Your task to perform on an android device: Open calendar and show me the fourth week of next month Image 0: 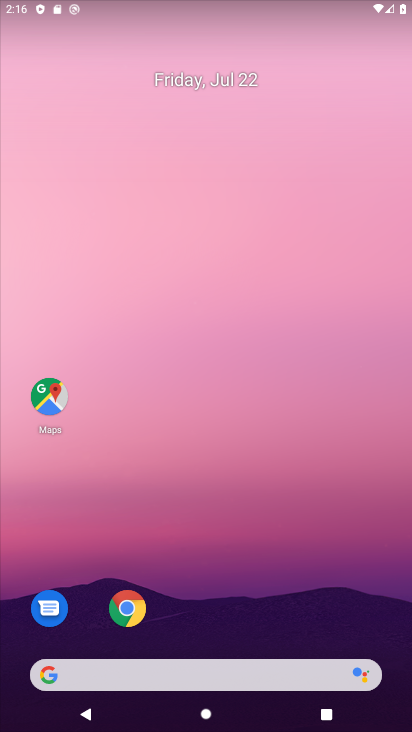
Step 0: drag from (173, 661) to (173, 208)
Your task to perform on an android device: Open calendar and show me the fourth week of next month Image 1: 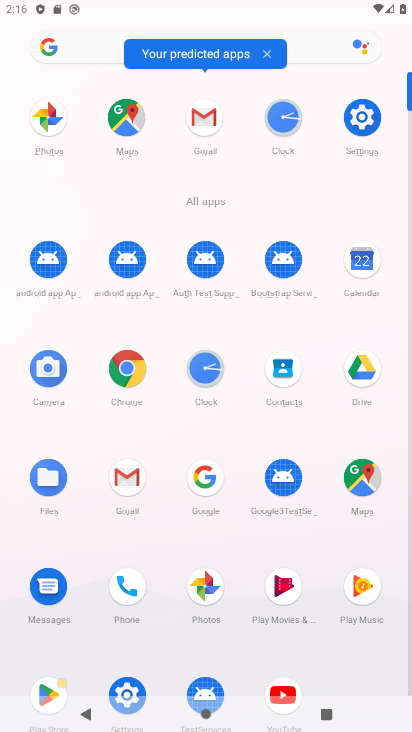
Step 1: click (359, 266)
Your task to perform on an android device: Open calendar and show me the fourth week of next month Image 2: 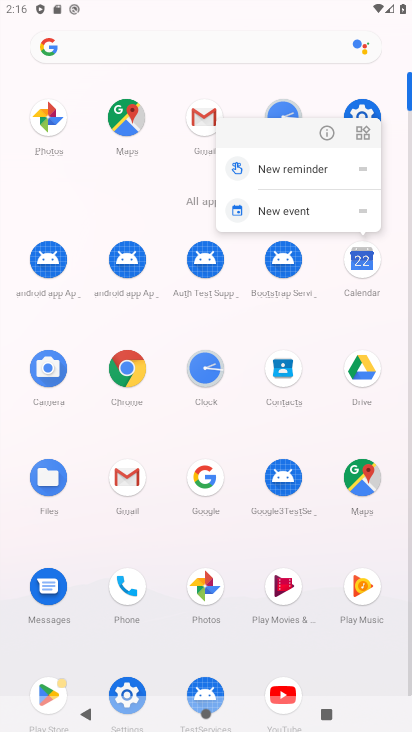
Step 2: click (356, 261)
Your task to perform on an android device: Open calendar and show me the fourth week of next month Image 3: 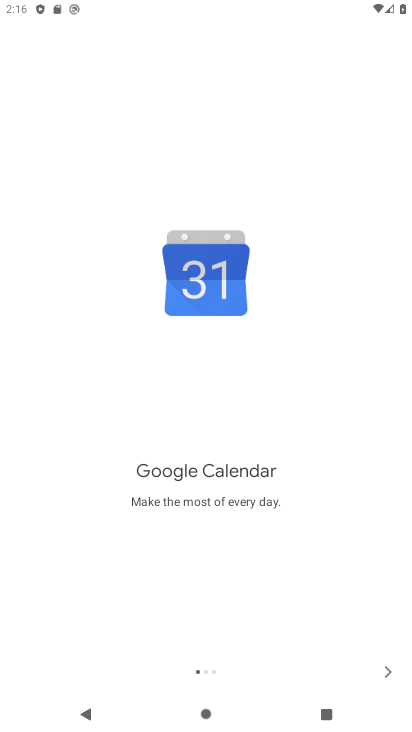
Step 3: click (389, 670)
Your task to perform on an android device: Open calendar and show me the fourth week of next month Image 4: 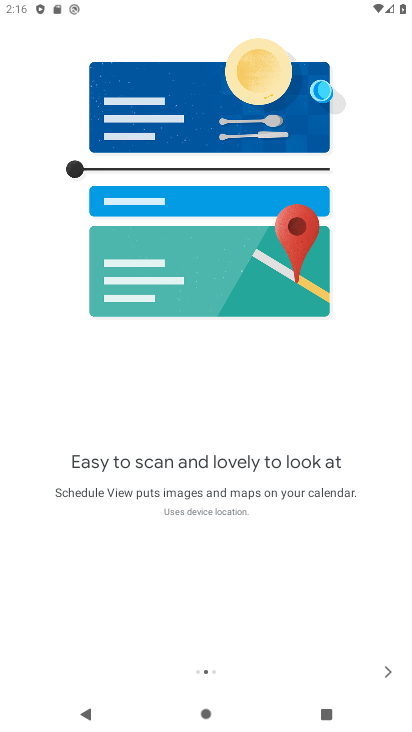
Step 4: click (389, 670)
Your task to perform on an android device: Open calendar and show me the fourth week of next month Image 5: 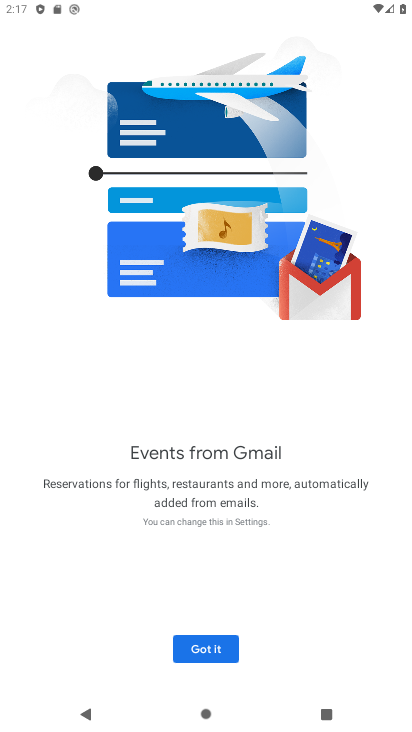
Step 5: click (186, 654)
Your task to perform on an android device: Open calendar and show me the fourth week of next month Image 6: 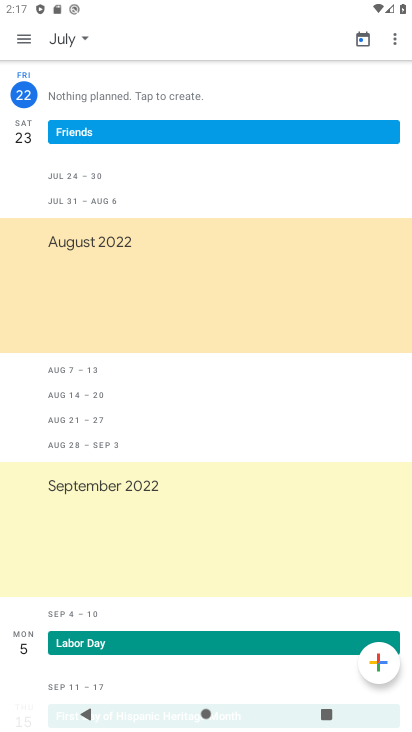
Step 6: click (66, 34)
Your task to perform on an android device: Open calendar and show me the fourth week of next month Image 7: 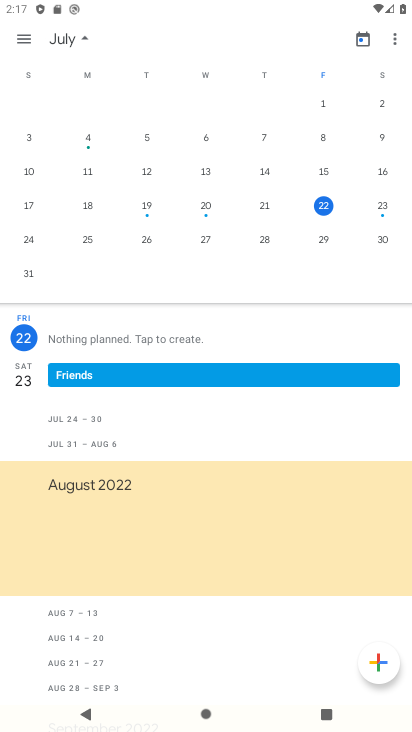
Step 7: drag from (395, 213) to (15, 196)
Your task to perform on an android device: Open calendar and show me the fourth week of next month Image 8: 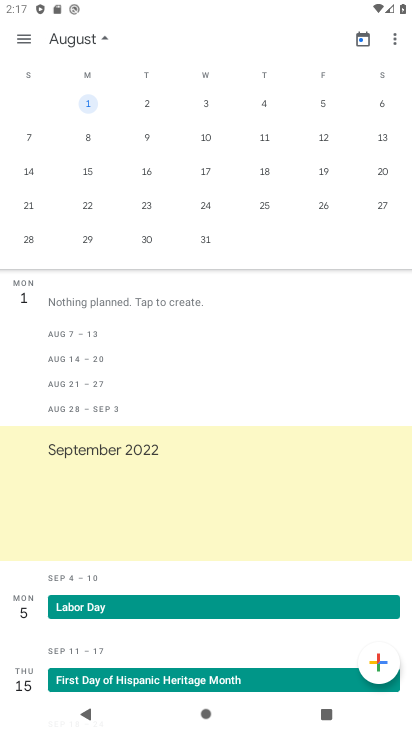
Step 8: click (26, 204)
Your task to perform on an android device: Open calendar and show me the fourth week of next month Image 9: 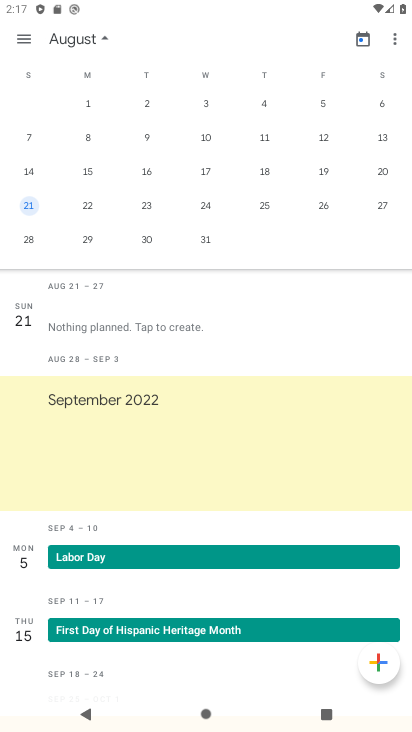
Step 9: task complete